Your task to perform on an android device: delete a single message in the gmail app Image 0: 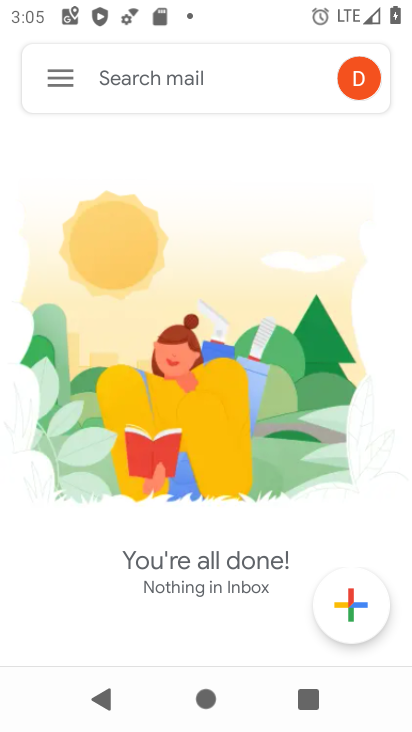
Step 0: press back button
Your task to perform on an android device: delete a single message in the gmail app Image 1: 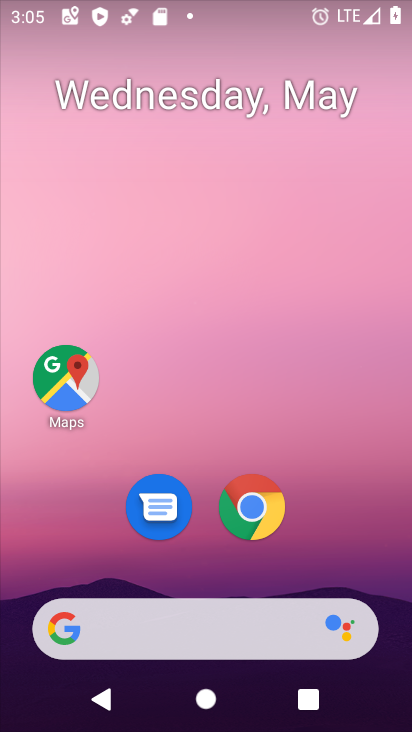
Step 1: drag from (312, 542) to (269, 114)
Your task to perform on an android device: delete a single message in the gmail app Image 2: 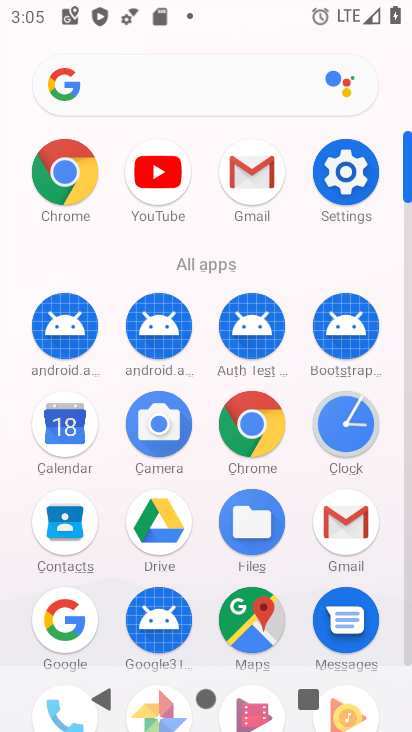
Step 2: click (253, 173)
Your task to perform on an android device: delete a single message in the gmail app Image 3: 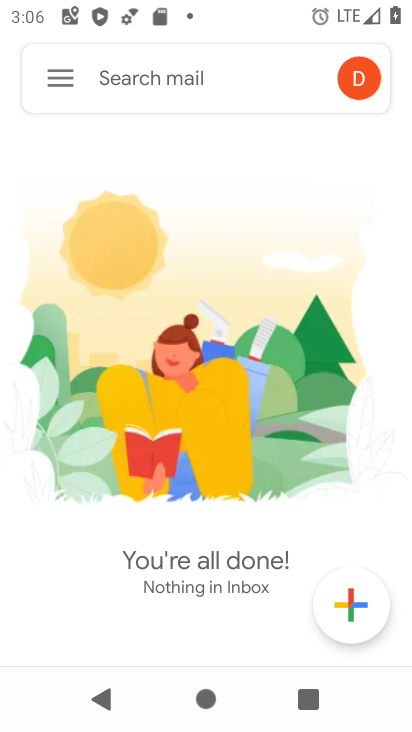
Step 3: click (59, 77)
Your task to perform on an android device: delete a single message in the gmail app Image 4: 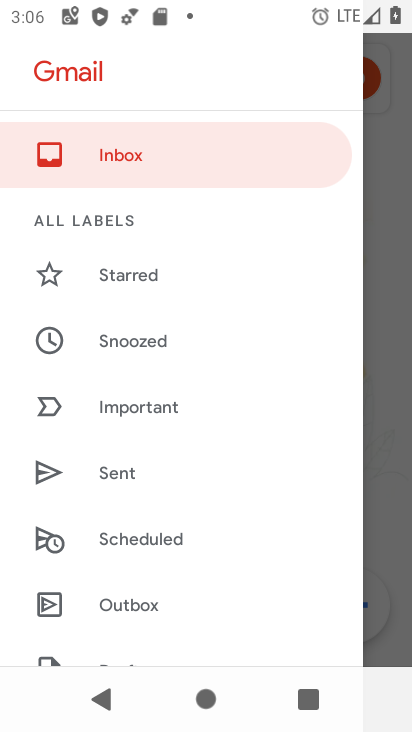
Step 4: drag from (124, 426) to (139, 353)
Your task to perform on an android device: delete a single message in the gmail app Image 5: 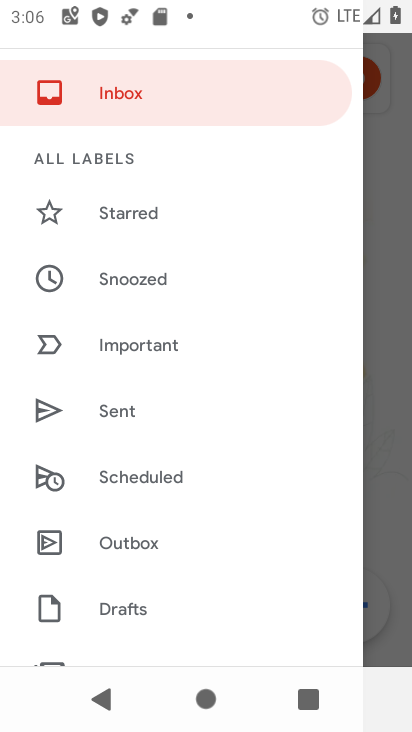
Step 5: drag from (134, 472) to (141, 396)
Your task to perform on an android device: delete a single message in the gmail app Image 6: 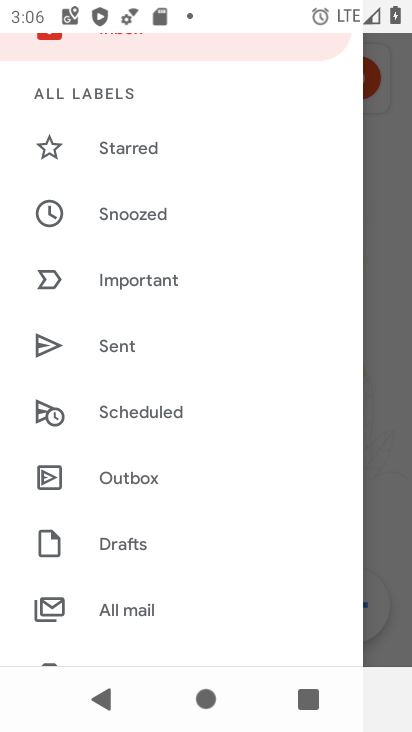
Step 6: drag from (147, 521) to (143, 432)
Your task to perform on an android device: delete a single message in the gmail app Image 7: 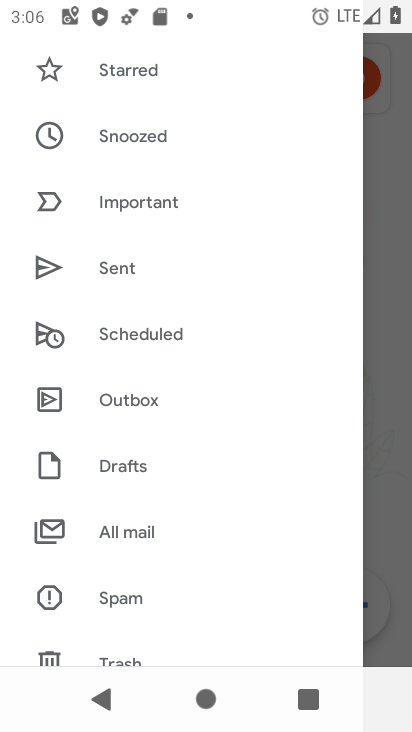
Step 7: drag from (142, 559) to (124, 487)
Your task to perform on an android device: delete a single message in the gmail app Image 8: 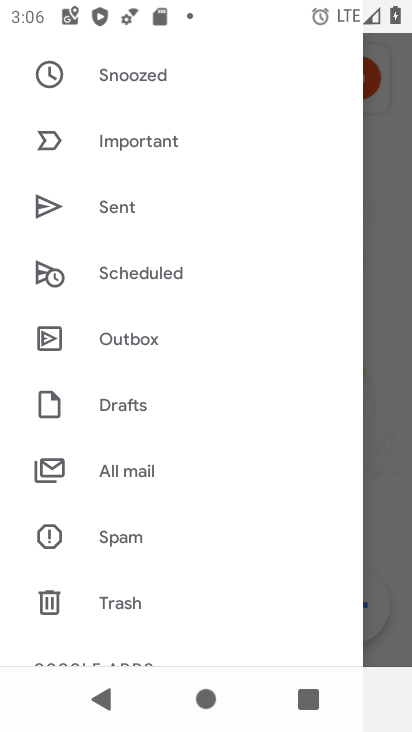
Step 8: click (120, 477)
Your task to perform on an android device: delete a single message in the gmail app Image 9: 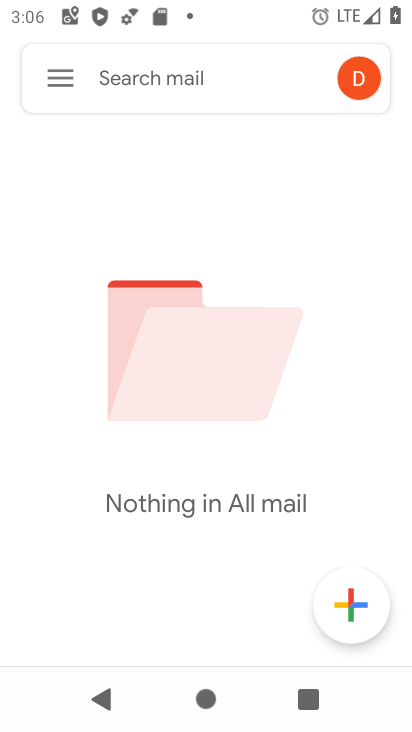
Step 9: click (71, 76)
Your task to perform on an android device: delete a single message in the gmail app Image 10: 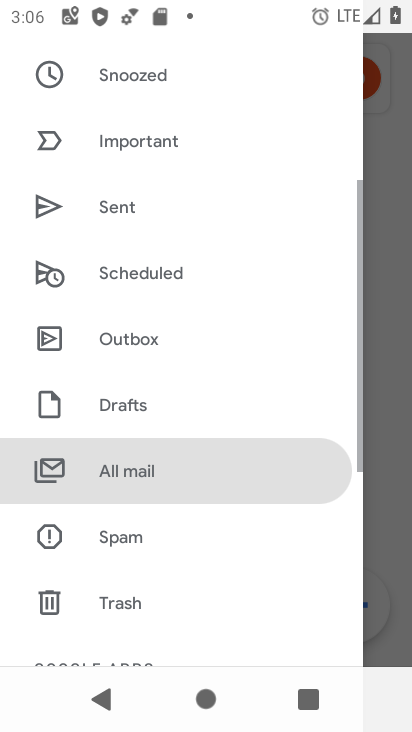
Step 10: drag from (133, 174) to (199, 268)
Your task to perform on an android device: delete a single message in the gmail app Image 11: 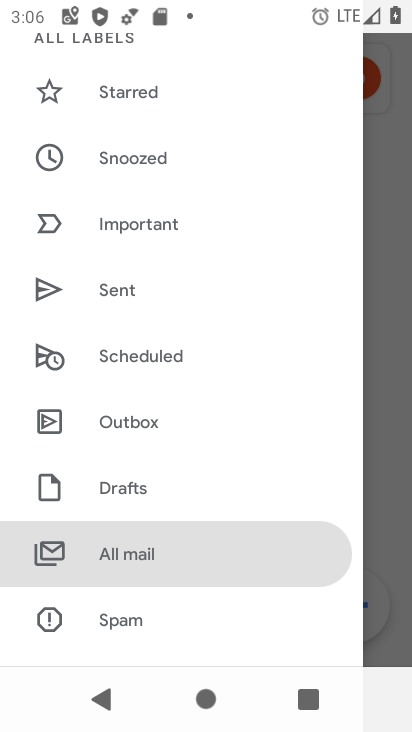
Step 11: drag from (116, 125) to (169, 248)
Your task to perform on an android device: delete a single message in the gmail app Image 12: 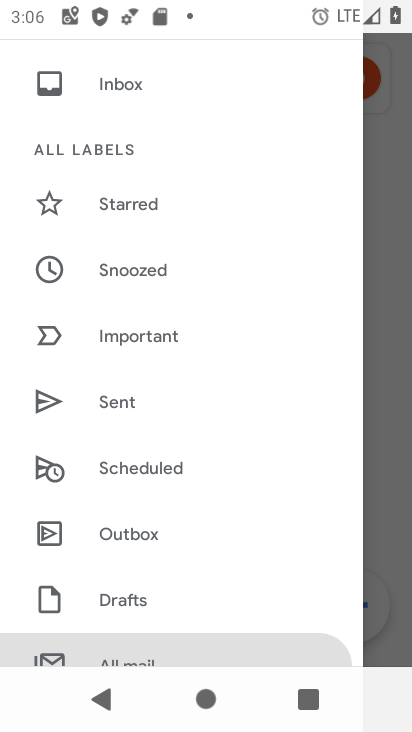
Step 12: click (106, 93)
Your task to perform on an android device: delete a single message in the gmail app Image 13: 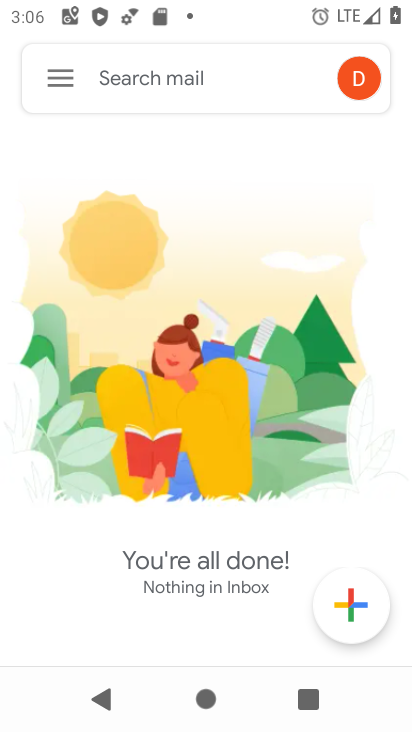
Step 13: task complete